Your task to perform on an android device: Search for flights from Barcelona to Mexico city Image 0: 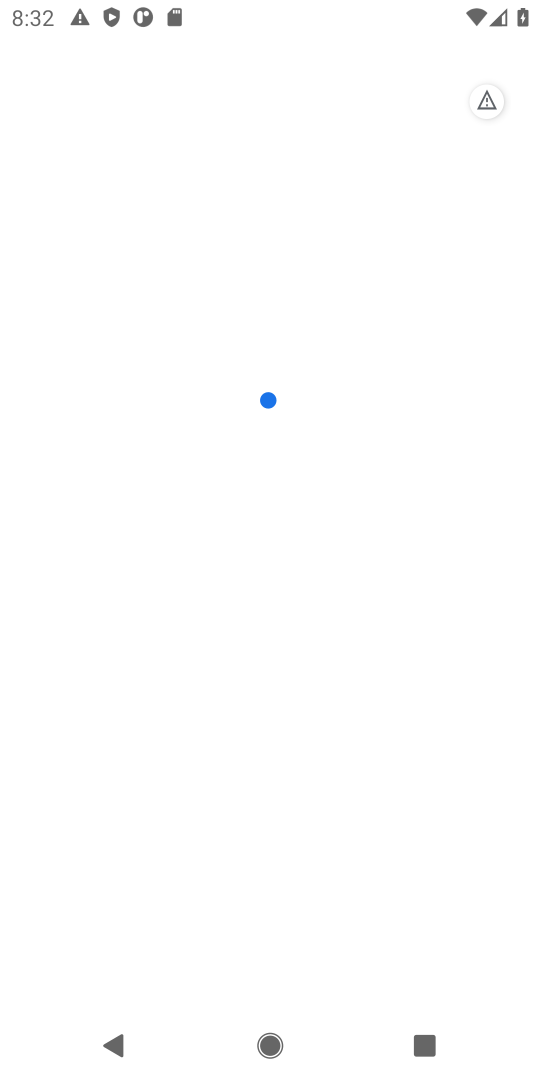
Step 0: drag from (292, 664) to (292, 208)
Your task to perform on an android device: Search for flights from Barcelona to Mexico city Image 1: 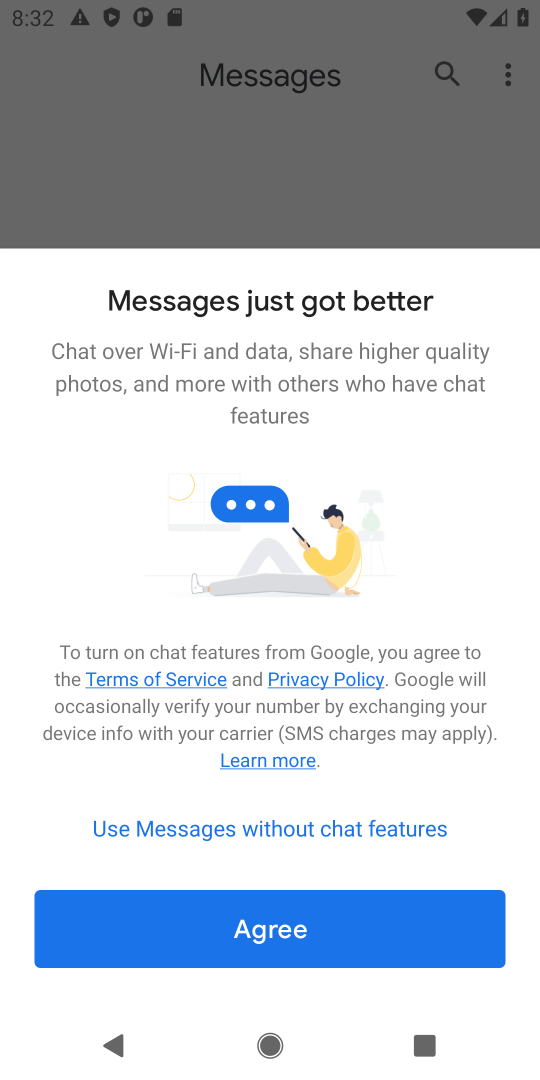
Step 1: press home button
Your task to perform on an android device: Search for flights from Barcelona to Mexico city Image 2: 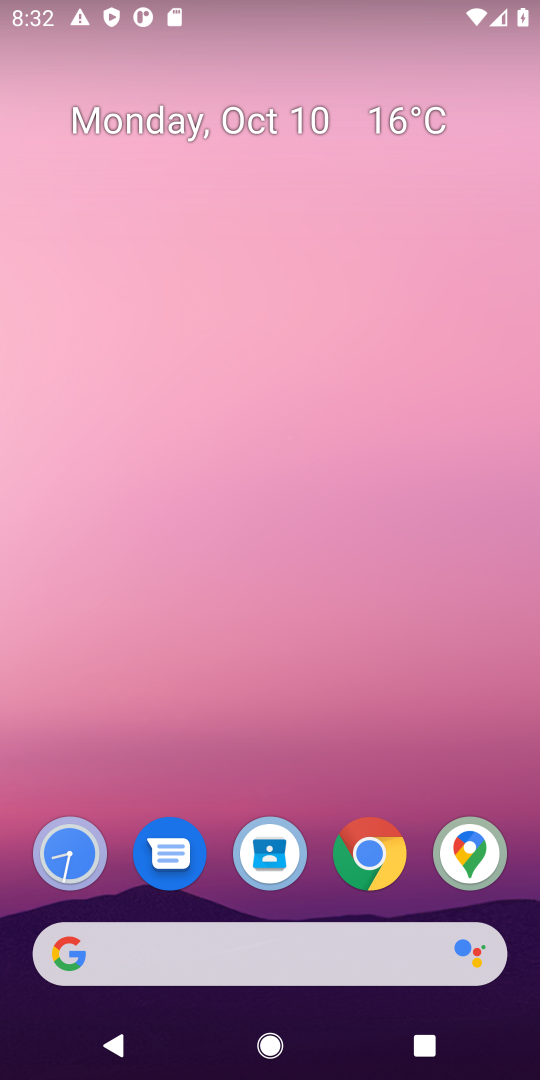
Step 2: drag from (330, 907) to (300, 262)
Your task to perform on an android device: Search for flights from Barcelona to Mexico city Image 3: 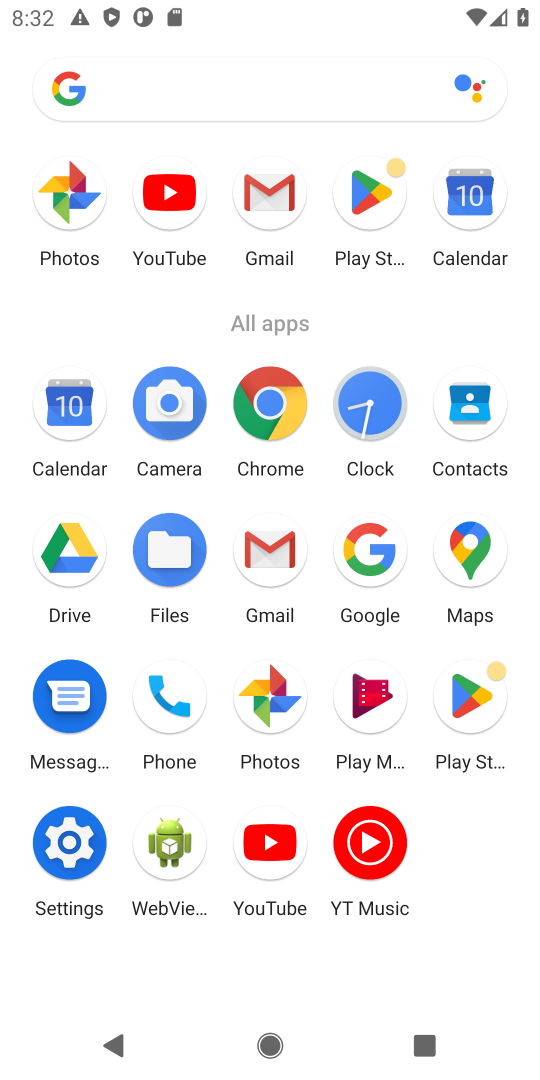
Step 3: click (373, 545)
Your task to perform on an android device: Search for flights from Barcelona to Mexico city Image 4: 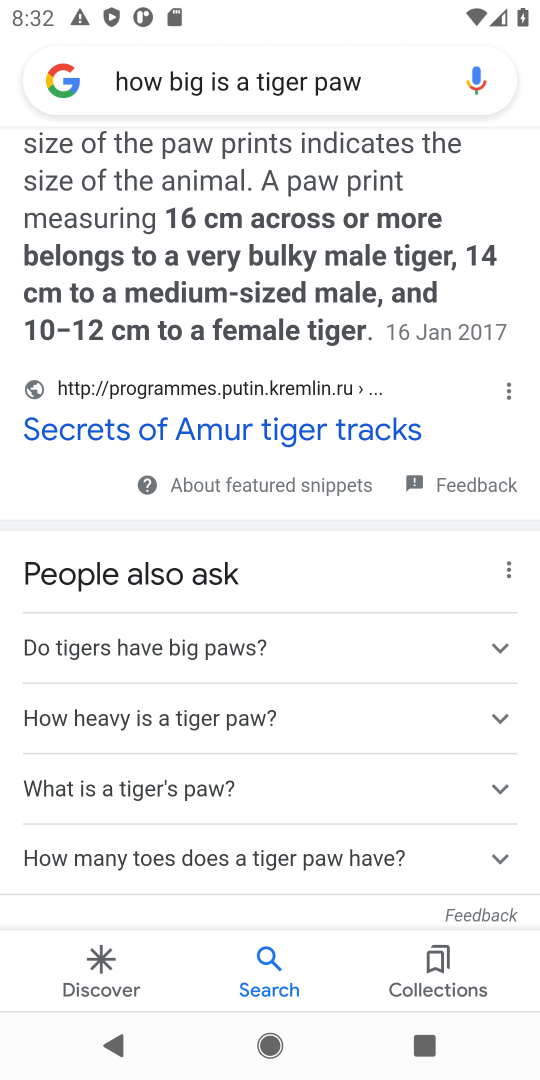
Step 4: drag from (306, 240) to (250, 749)
Your task to perform on an android device: Search for flights from Barcelona to Mexico city Image 5: 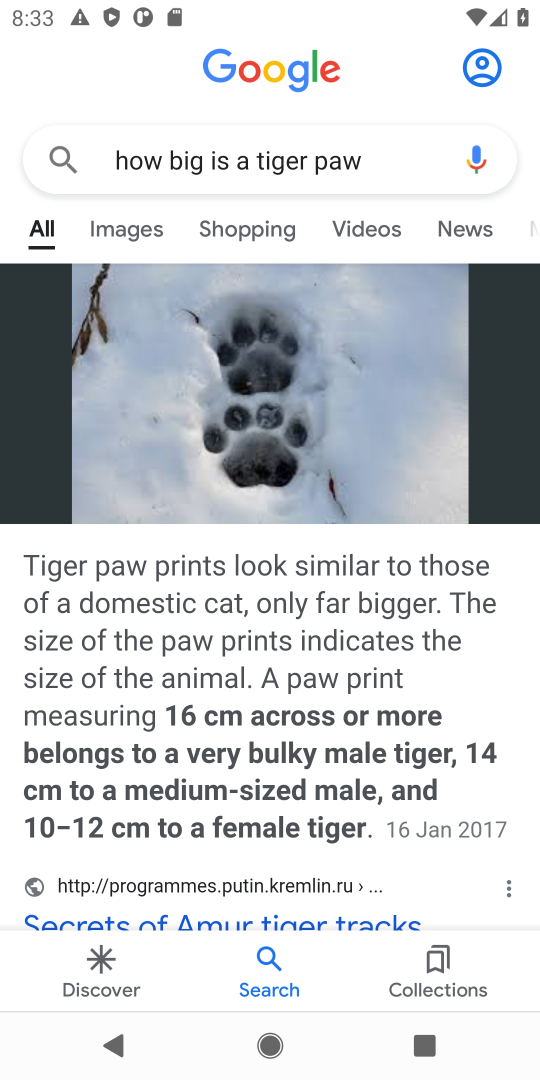
Step 5: click (374, 152)
Your task to perform on an android device: Search for flights from Barcelona to Mexico city Image 6: 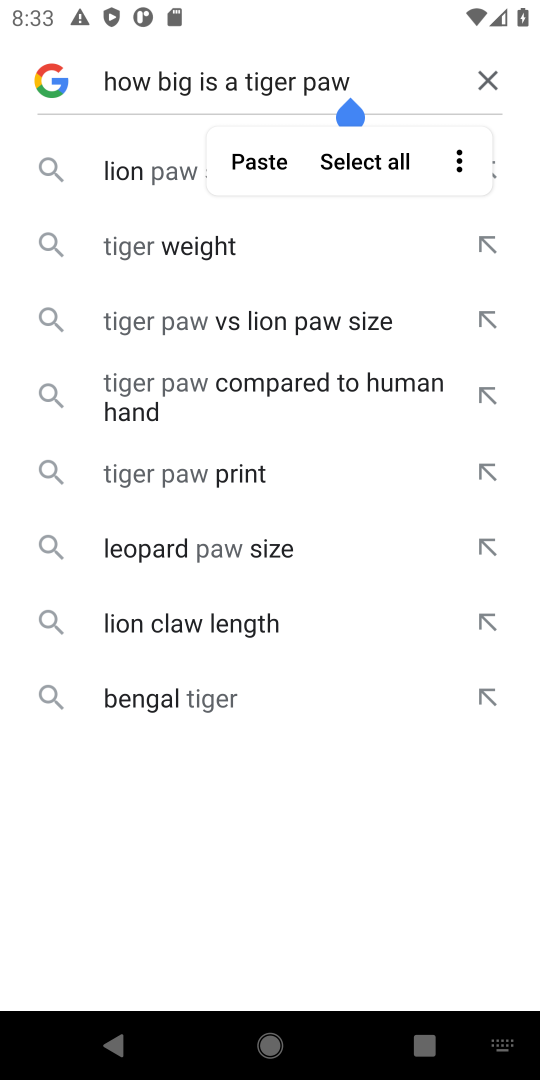
Step 6: click (479, 78)
Your task to perform on an android device: Search for flights from Barcelona to Mexico city Image 7: 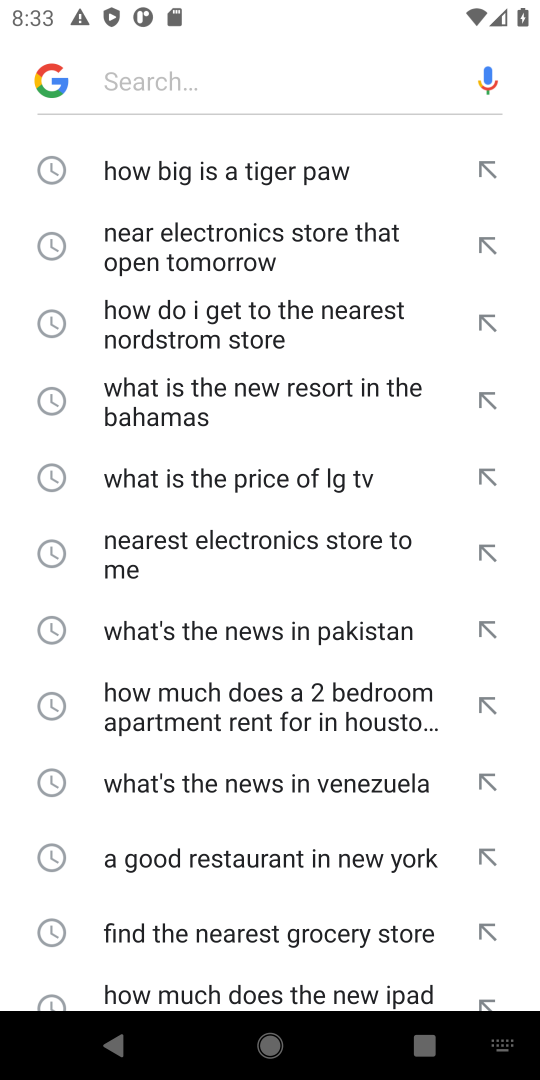
Step 7: type "lights from Barcelona to Mexico city"
Your task to perform on an android device: Search for flights from Barcelona to Mexico city Image 8: 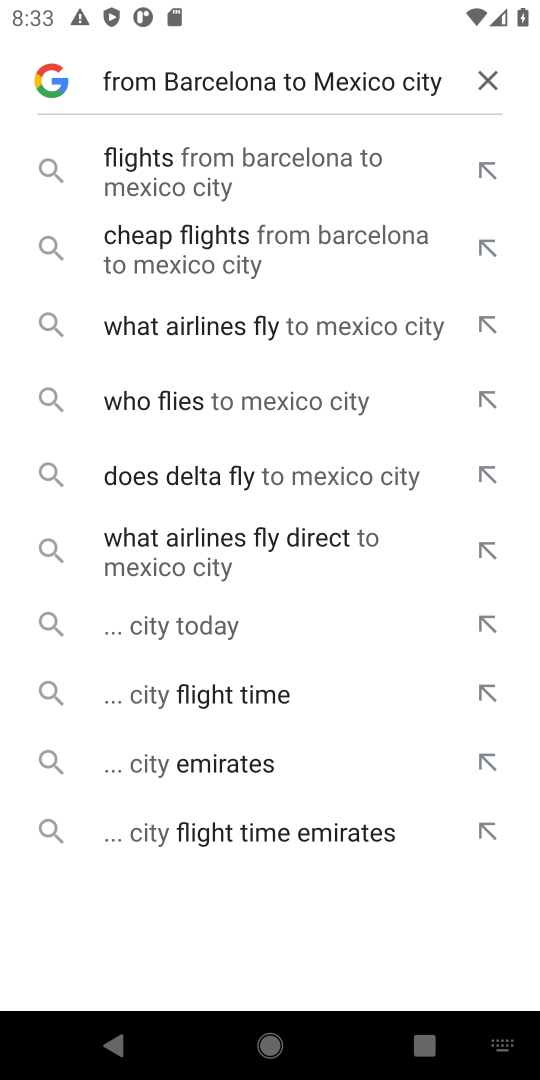
Step 8: type ""
Your task to perform on an android device: Search for flights from Barcelona to Mexico city Image 9: 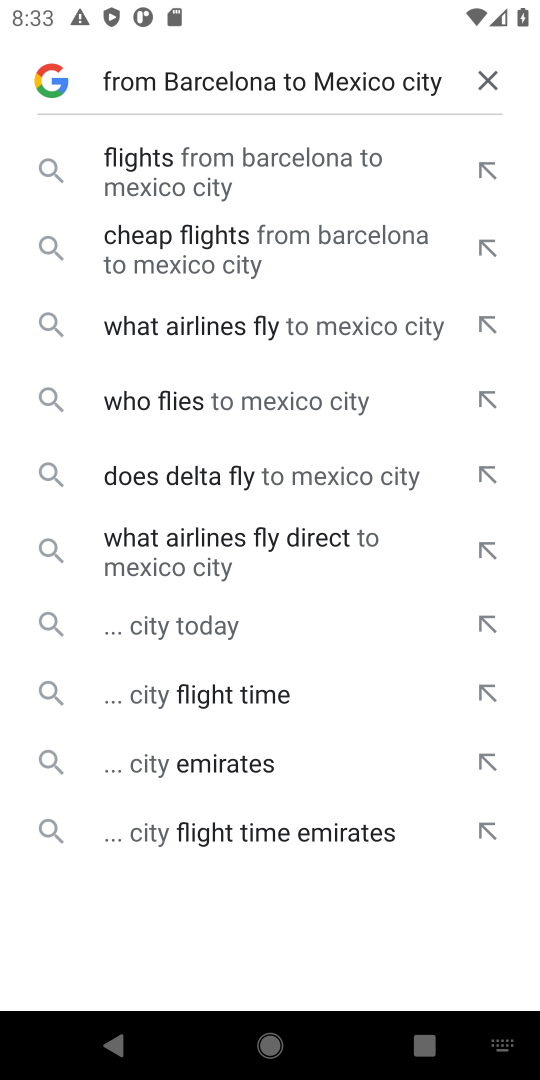
Step 9: click (226, 166)
Your task to perform on an android device: Search for flights from Barcelona to Mexico city Image 10: 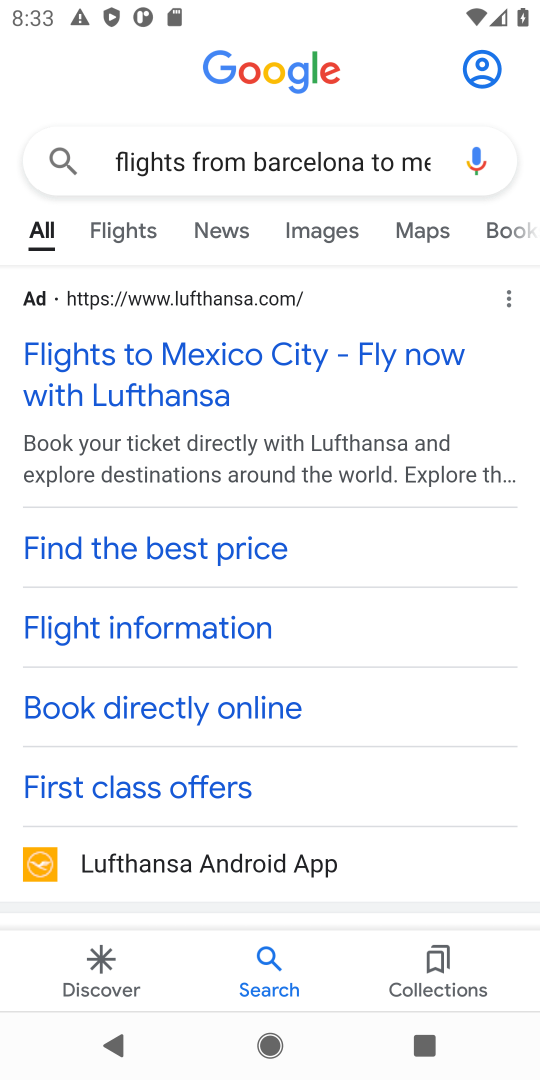
Step 10: drag from (225, 741) to (201, 523)
Your task to perform on an android device: Search for flights from Barcelona to Mexico city Image 11: 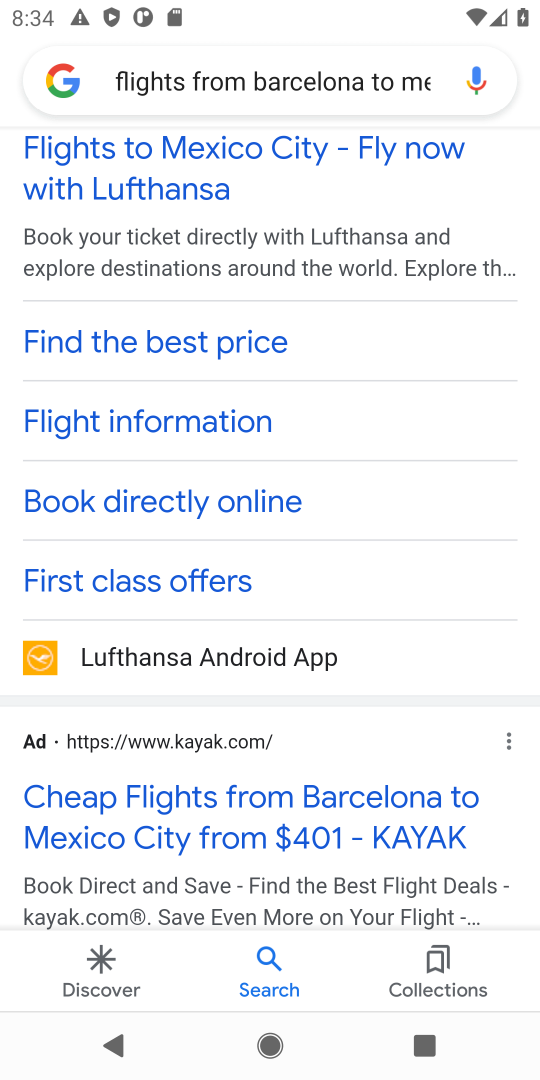
Step 11: drag from (203, 265) to (220, 569)
Your task to perform on an android device: Search for flights from Barcelona to Mexico city Image 12: 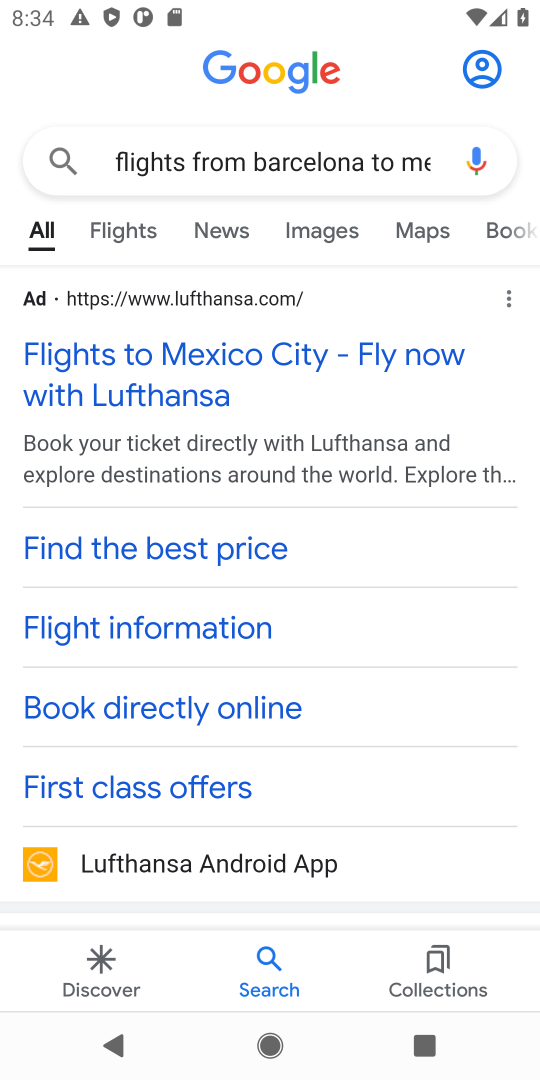
Step 12: click (134, 230)
Your task to perform on an android device: Search for flights from Barcelona to Mexico city Image 13: 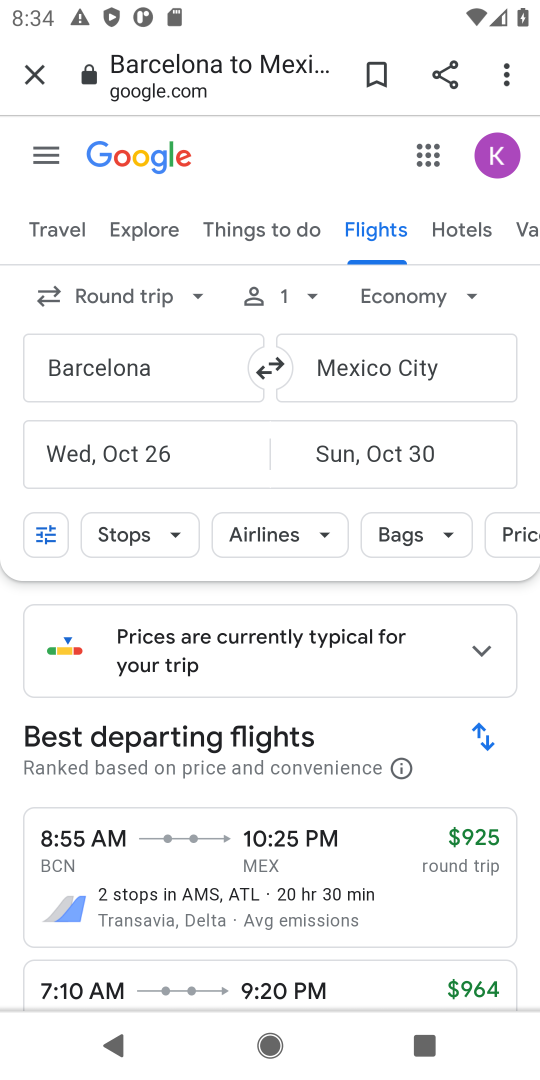
Step 13: task complete